Your task to perform on an android device: turn off priority inbox in the gmail app Image 0: 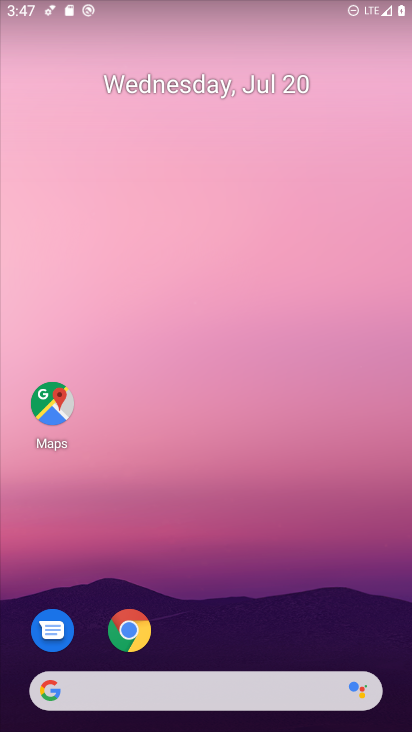
Step 0: drag from (187, 571) to (227, 75)
Your task to perform on an android device: turn off priority inbox in the gmail app Image 1: 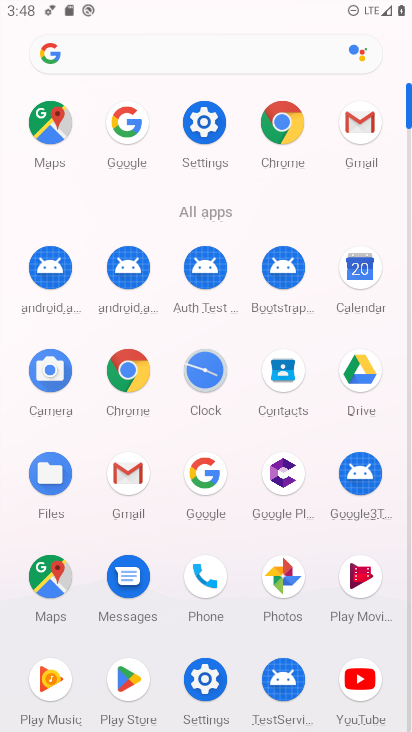
Step 1: click (126, 467)
Your task to perform on an android device: turn off priority inbox in the gmail app Image 2: 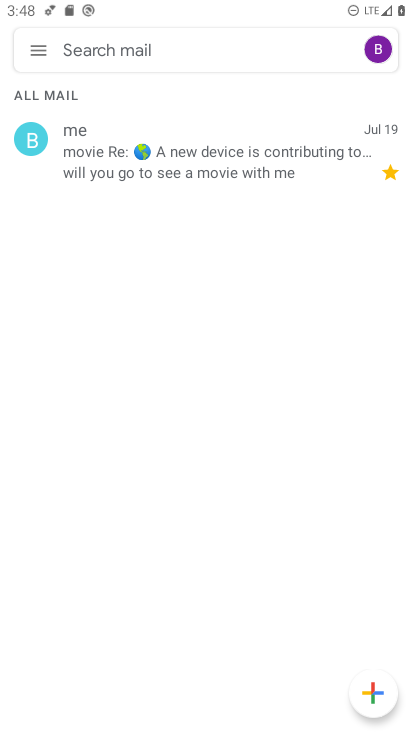
Step 2: click (41, 47)
Your task to perform on an android device: turn off priority inbox in the gmail app Image 3: 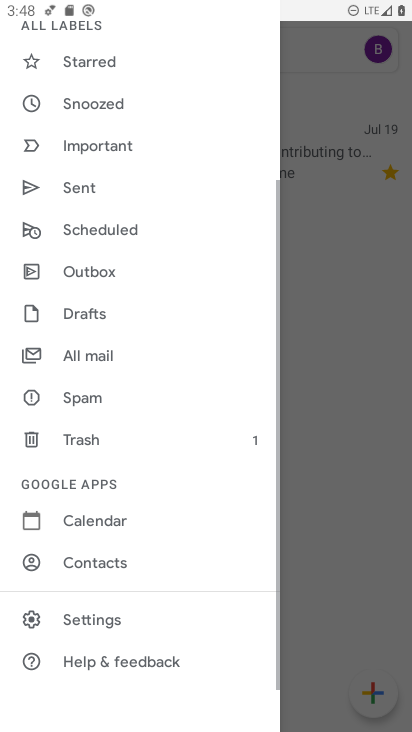
Step 3: click (102, 604)
Your task to perform on an android device: turn off priority inbox in the gmail app Image 4: 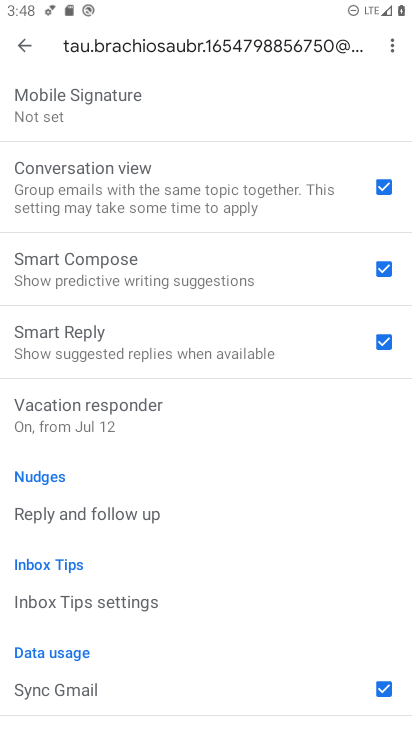
Step 4: drag from (142, 188) to (124, 718)
Your task to perform on an android device: turn off priority inbox in the gmail app Image 5: 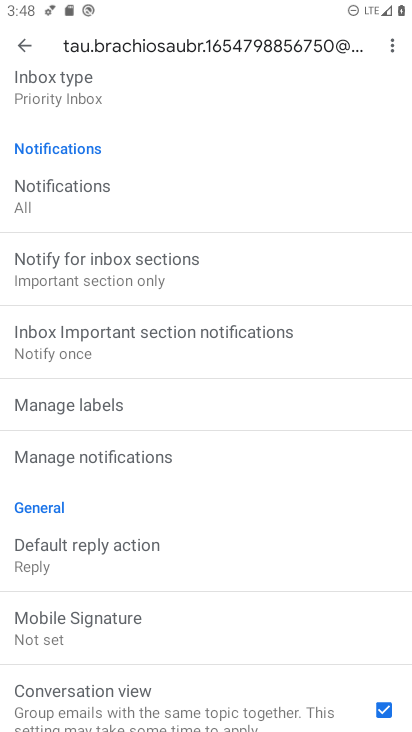
Step 5: click (85, 90)
Your task to perform on an android device: turn off priority inbox in the gmail app Image 6: 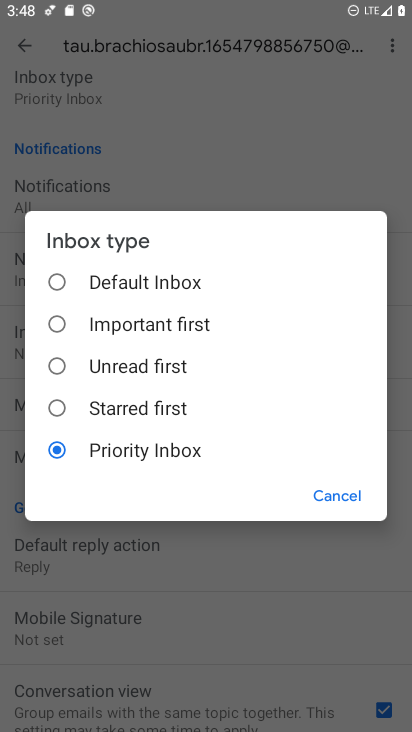
Step 6: click (55, 406)
Your task to perform on an android device: turn off priority inbox in the gmail app Image 7: 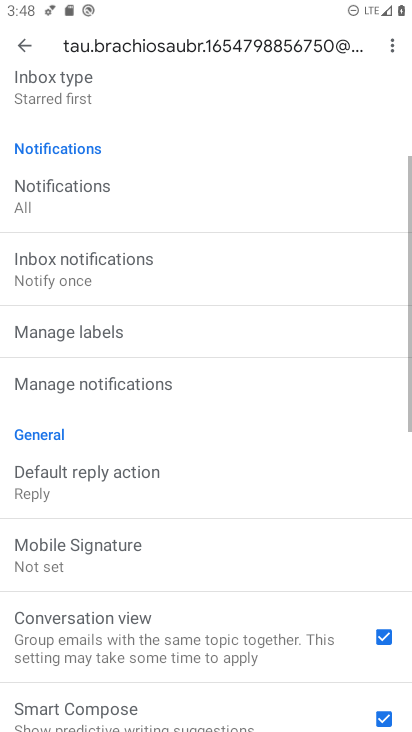
Step 7: task complete